Your task to perform on an android device: see creations saved in the google photos Image 0: 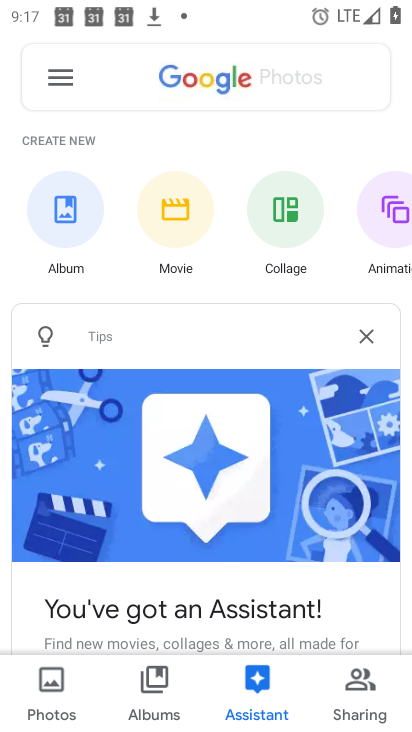
Step 0: press home button
Your task to perform on an android device: see creations saved in the google photos Image 1: 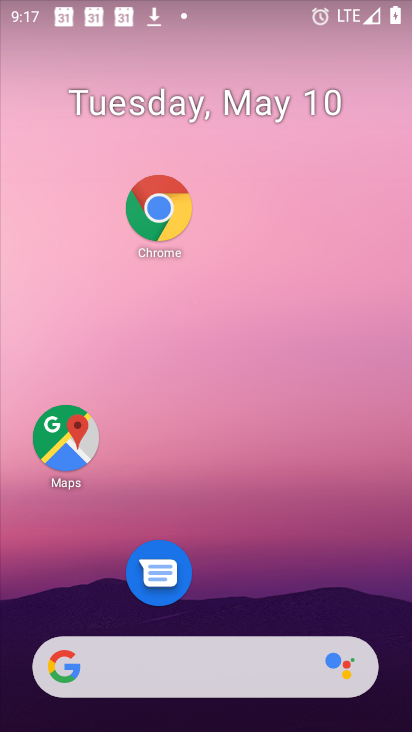
Step 1: drag from (227, 717) to (239, 265)
Your task to perform on an android device: see creations saved in the google photos Image 2: 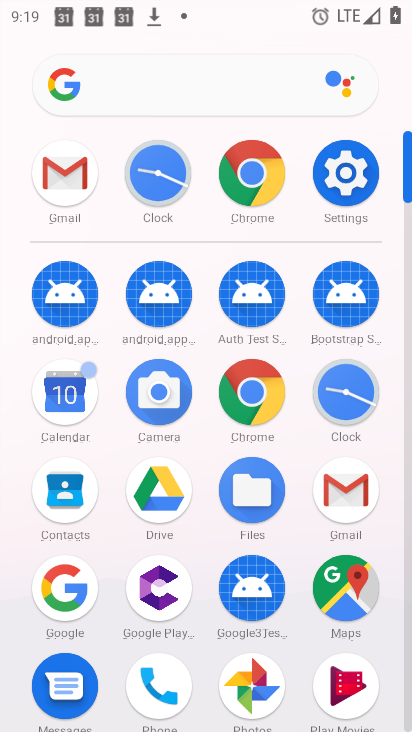
Step 2: click (257, 662)
Your task to perform on an android device: see creations saved in the google photos Image 3: 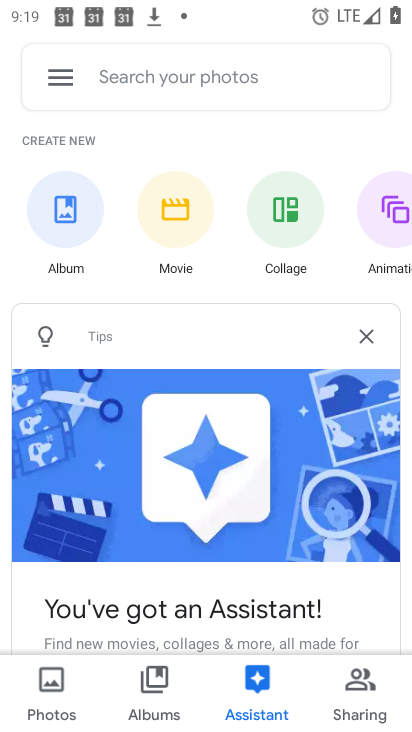
Step 3: click (66, 681)
Your task to perform on an android device: see creations saved in the google photos Image 4: 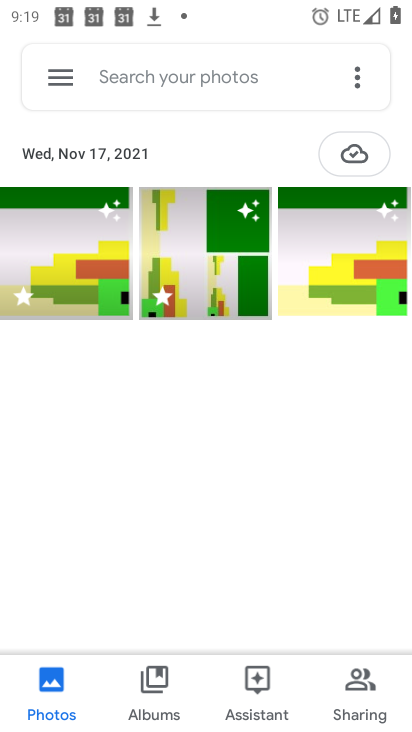
Step 4: click (321, 279)
Your task to perform on an android device: see creations saved in the google photos Image 5: 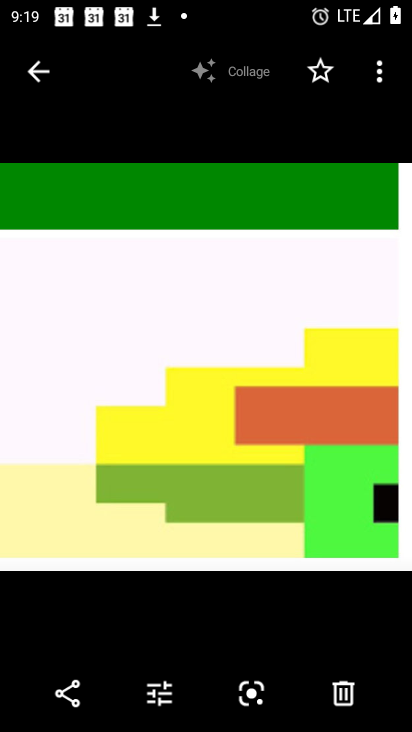
Step 5: click (365, 75)
Your task to perform on an android device: see creations saved in the google photos Image 6: 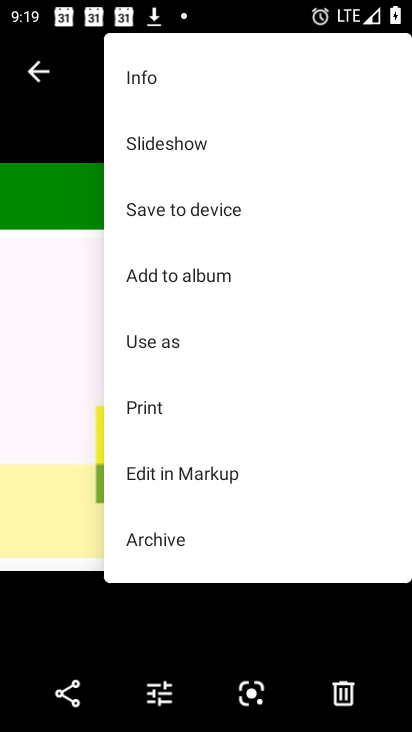
Step 6: click (201, 213)
Your task to perform on an android device: see creations saved in the google photos Image 7: 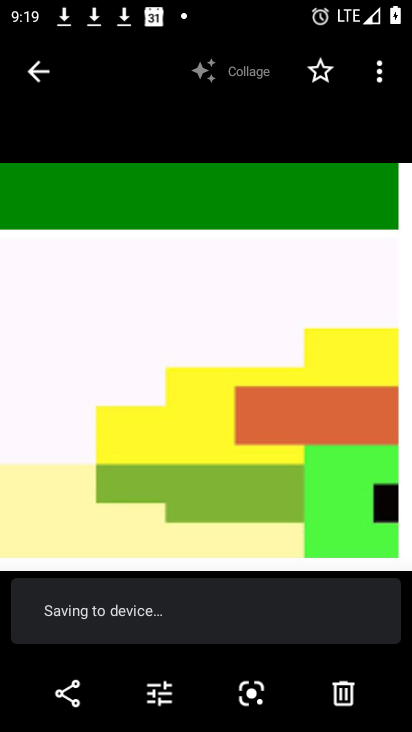
Step 7: task complete